Your task to perform on an android device: stop showing notifications on the lock screen Image 0: 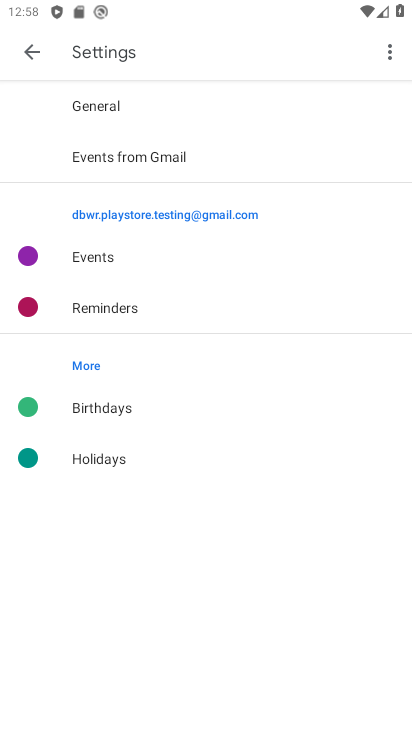
Step 0: press home button
Your task to perform on an android device: stop showing notifications on the lock screen Image 1: 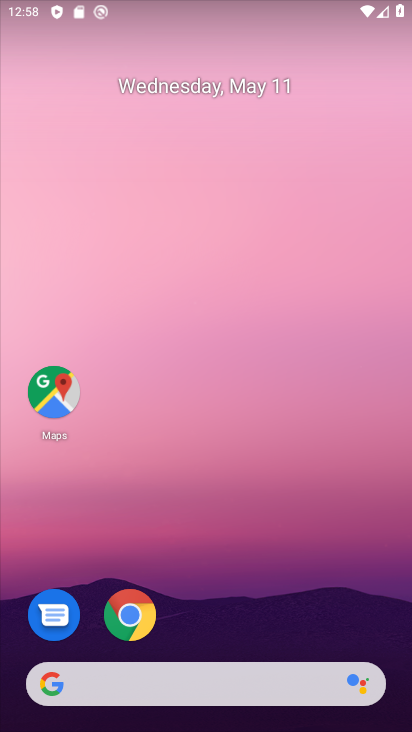
Step 1: drag from (388, 645) to (318, 222)
Your task to perform on an android device: stop showing notifications on the lock screen Image 2: 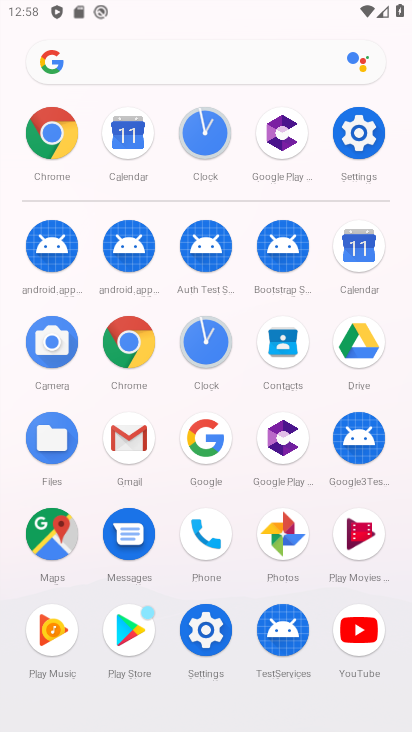
Step 2: click (357, 128)
Your task to perform on an android device: stop showing notifications on the lock screen Image 3: 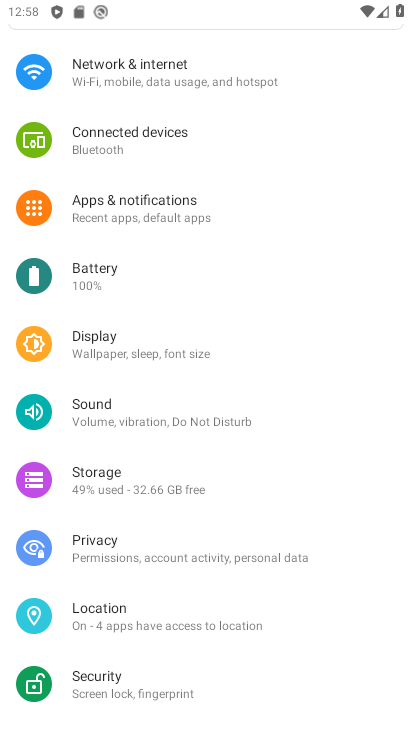
Step 3: click (215, 216)
Your task to perform on an android device: stop showing notifications on the lock screen Image 4: 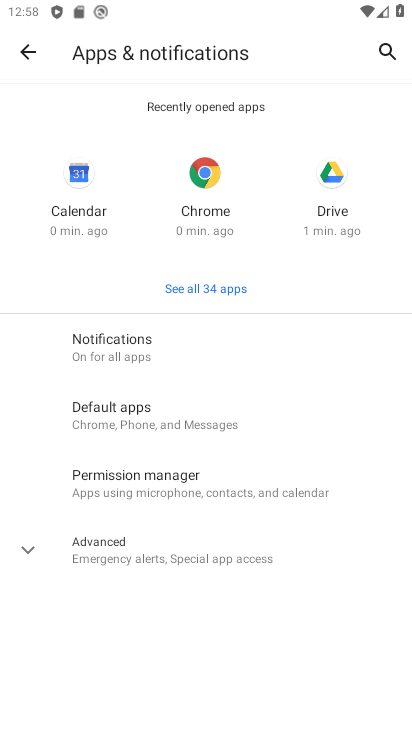
Step 4: click (127, 348)
Your task to perform on an android device: stop showing notifications on the lock screen Image 5: 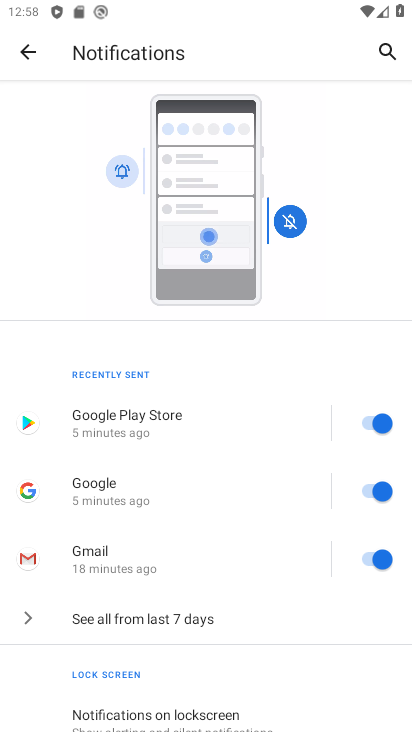
Step 5: drag from (209, 692) to (226, 398)
Your task to perform on an android device: stop showing notifications on the lock screen Image 6: 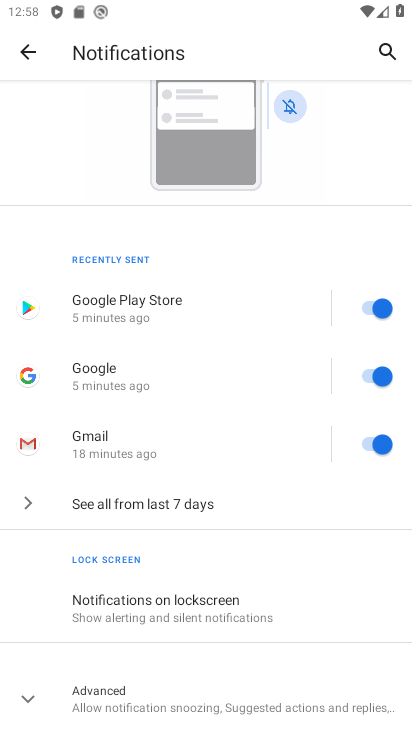
Step 6: drag from (263, 613) to (245, 420)
Your task to perform on an android device: stop showing notifications on the lock screen Image 7: 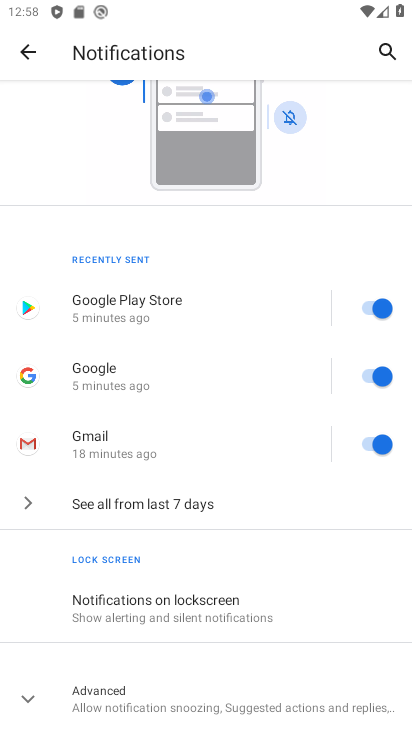
Step 7: drag from (261, 679) to (299, 337)
Your task to perform on an android device: stop showing notifications on the lock screen Image 8: 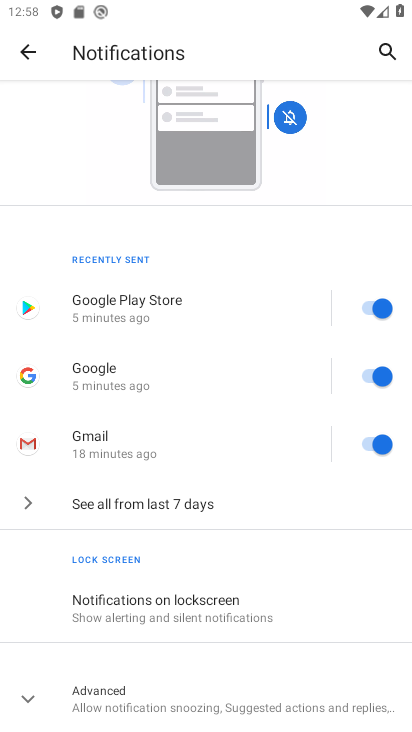
Step 8: click (247, 621)
Your task to perform on an android device: stop showing notifications on the lock screen Image 9: 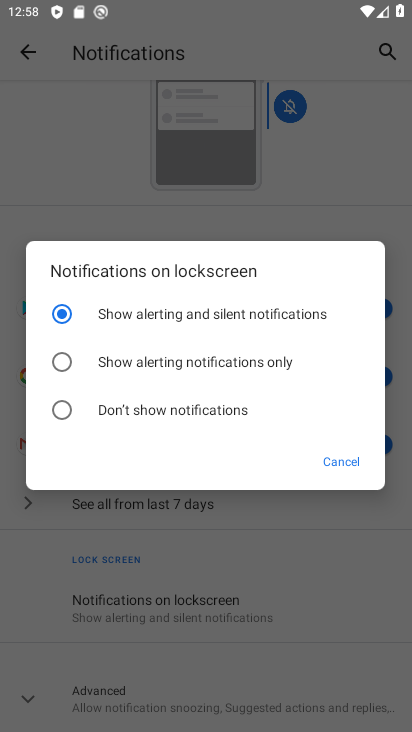
Step 9: click (180, 418)
Your task to perform on an android device: stop showing notifications on the lock screen Image 10: 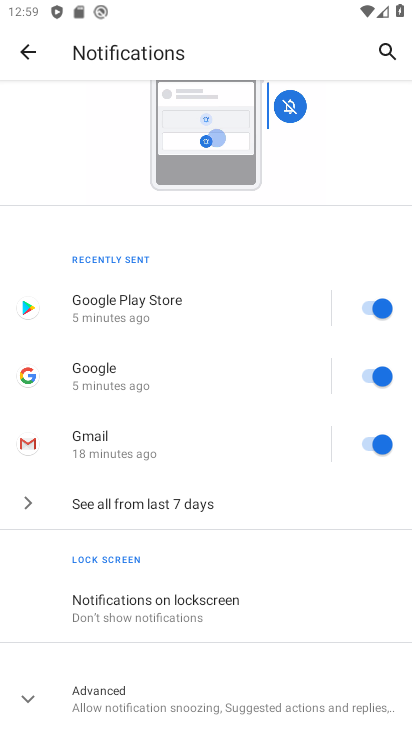
Step 10: task complete